Your task to perform on an android device: What's the weather? Image 0: 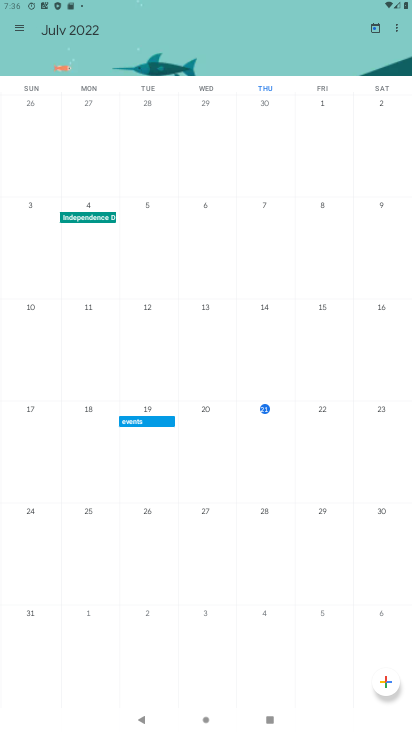
Step 0: press home button
Your task to perform on an android device: What's the weather? Image 1: 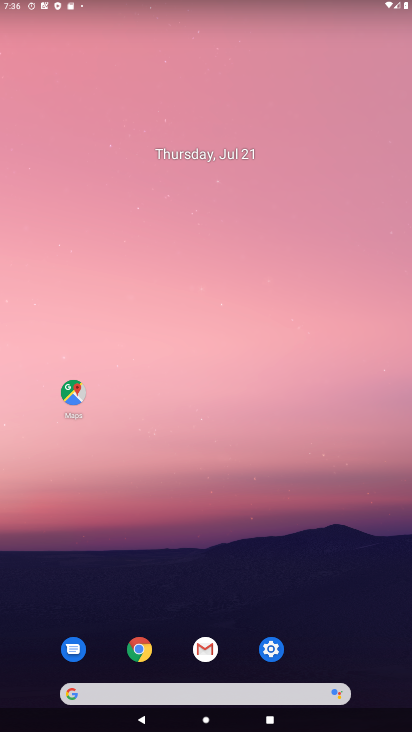
Step 1: click (178, 694)
Your task to perform on an android device: What's the weather? Image 2: 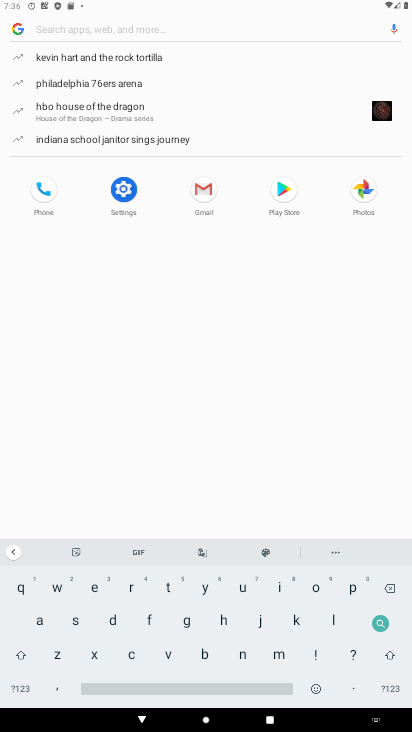
Step 2: click (62, 590)
Your task to perform on an android device: What's the weather? Image 3: 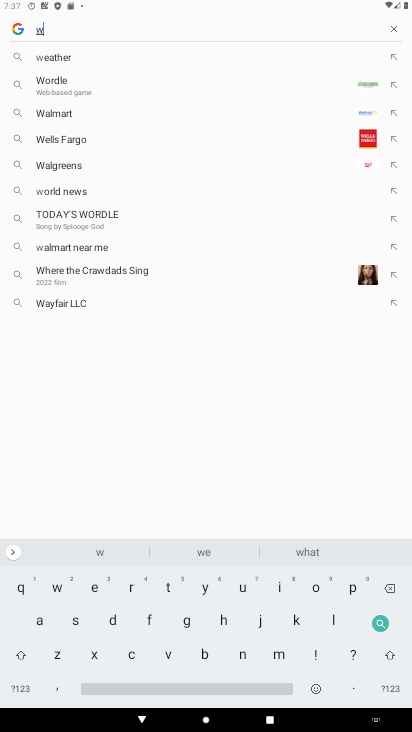
Step 3: click (115, 53)
Your task to perform on an android device: What's the weather? Image 4: 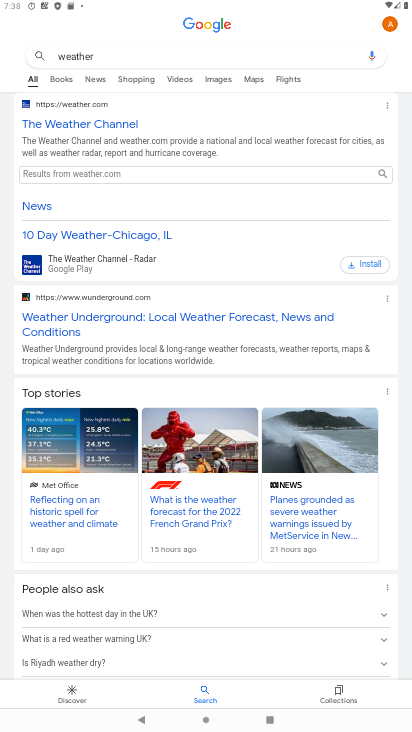
Step 4: task complete